Your task to perform on an android device: Search for seafood restaurants on Google Maps Image 0: 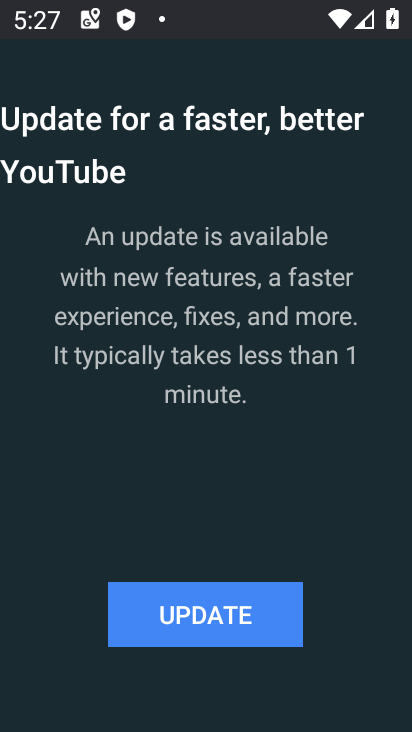
Step 0: press home button
Your task to perform on an android device: Search for seafood restaurants on Google Maps Image 1: 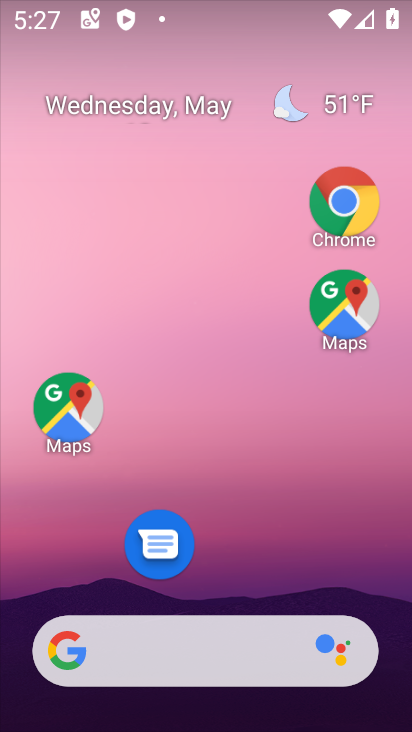
Step 1: click (75, 417)
Your task to perform on an android device: Search for seafood restaurants on Google Maps Image 2: 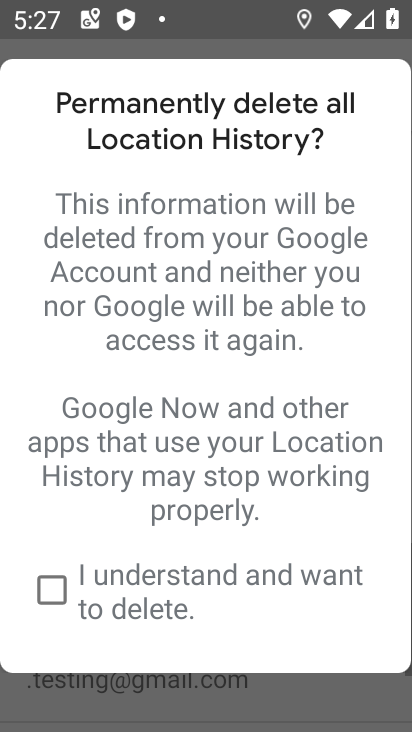
Step 2: press back button
Your task to perform on an android device: Search for seafood restaurants on Google Maps Image 3: 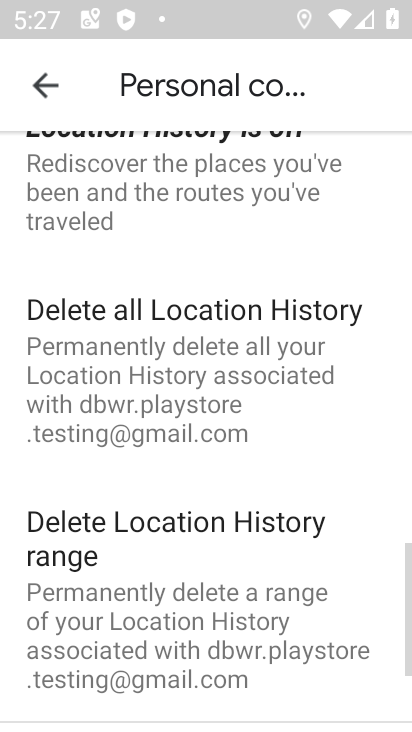
Step 3: press back button
Your task to perform on an android device: Search for seafood restaurants on Google Maps Image 4: 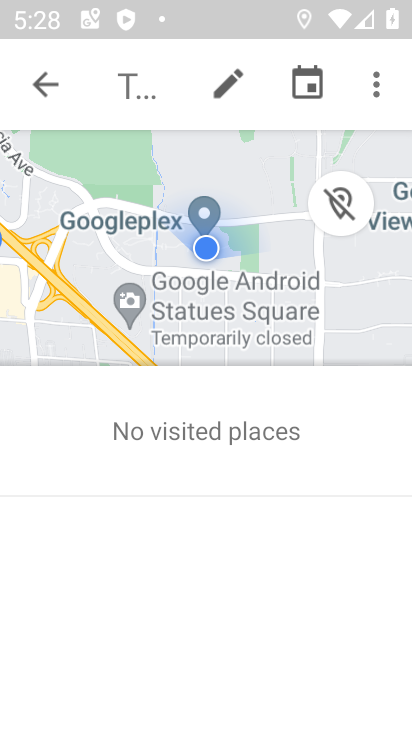
Step 4: press back button
Your task to perform on an android device: Search for seafood restaurants on Google Maps Image 5: 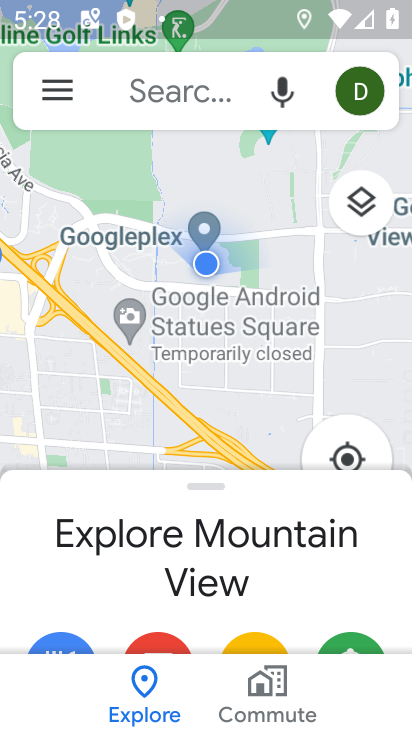
Step 5: click (163, 86)
Your task to perform on an android device: Search for seafood restaurants on Google Maps Image 6: 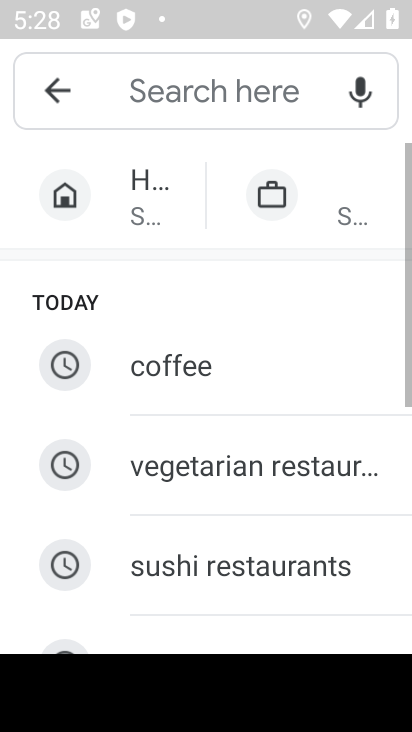
Step 6: drag from (195, 590) to (218, 265)
Your task to perform on an android device: Search for seafood restaurants on Google Maps Image 7: 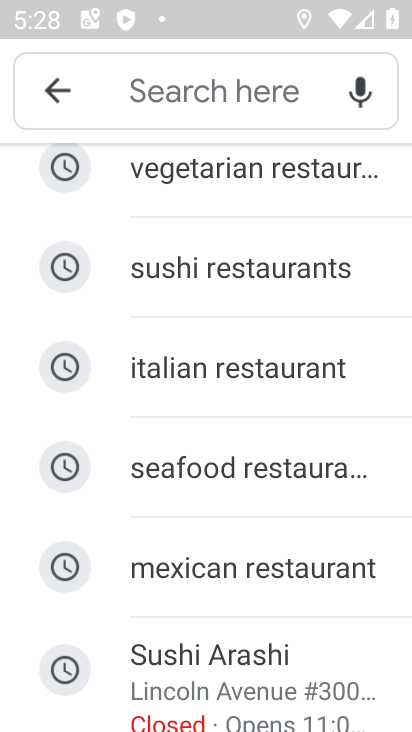
Step 7: click (232, 479)
Your task to perform on an android device: Search for seafood restaurants on Google Maps Image 8: 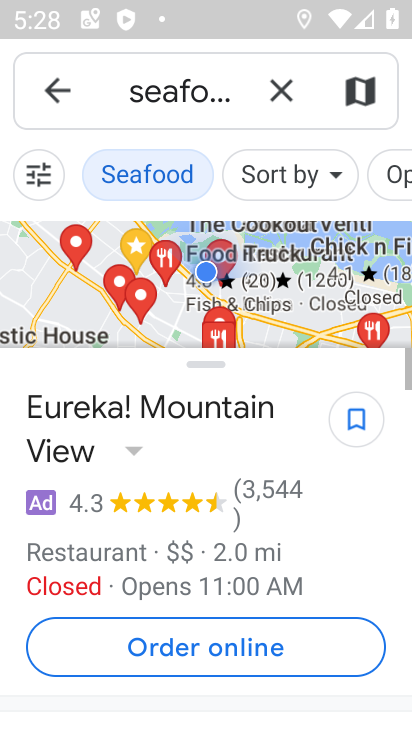
Step 8: task complete